Your task to perform on an android device: toggle pop-ups in chrome Image 0: 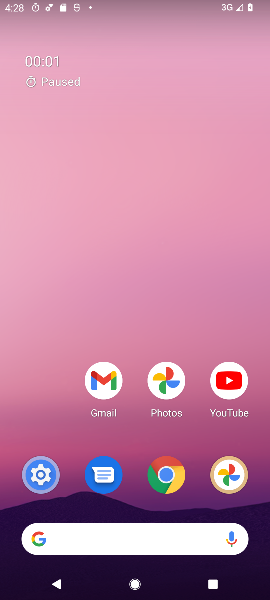
Step 0: click (163, 477)
Your task to perform on an android device: toggle pop-ups in chrome Image 1: 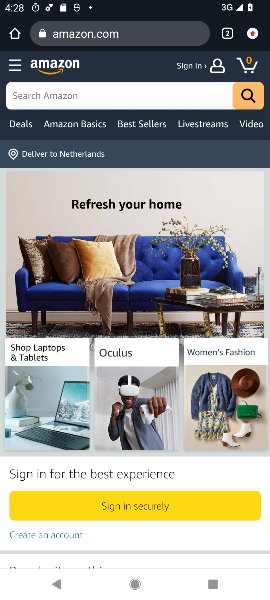
Step 1: click (254, 37)
Your task to perform on an android device: toggle pop-ups in chrome Image 2: 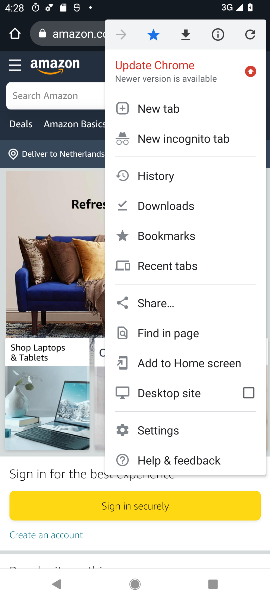
Step 2: click (158, 430)
Your task to perform on an android device: toggle pop-ups in chrome Image 3: 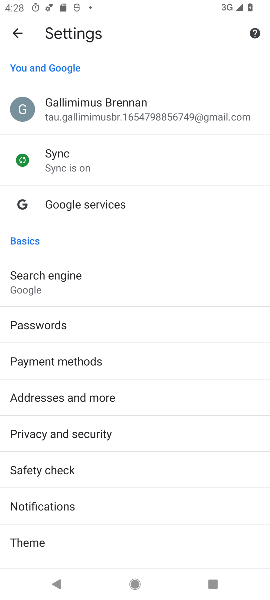
Step 3: drag from (113, 475) to (128, 13)
Your task to perform on an android device: toggle pop-ups in chrome Image 4: 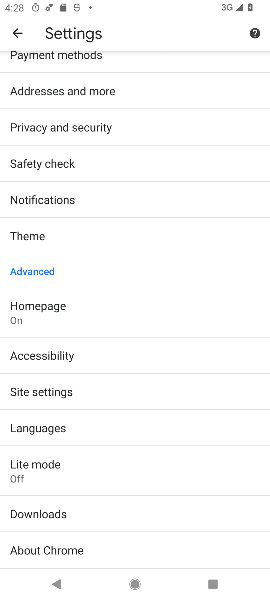
Step 4: click (62, 393)
Your task to perform on an android device: toggle pop-ups in chrome Image 5: 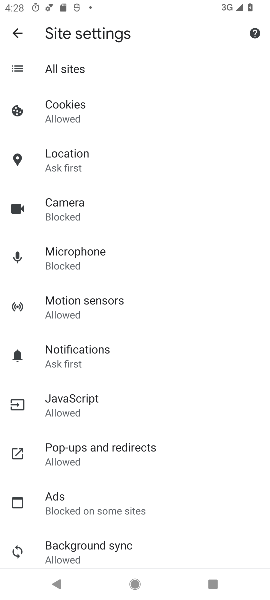
Step 5: click (91, 452)
Your task to perform on an android device: toggle pop-ups in chrome Image 6: 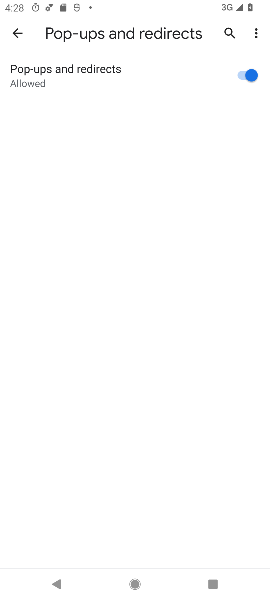
Step 6: task complete